Your task to perform on an android device: turn pop-ups on in chrome Image 0: 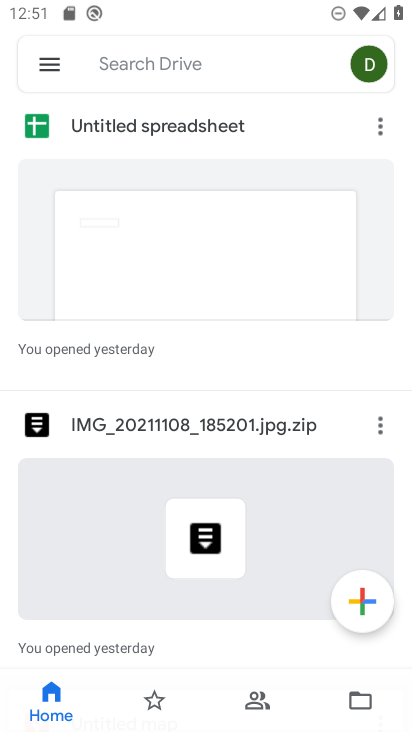
Step 0: press home button
Your task to perform on an android device: turn pop-ups on in chrome Image 1: 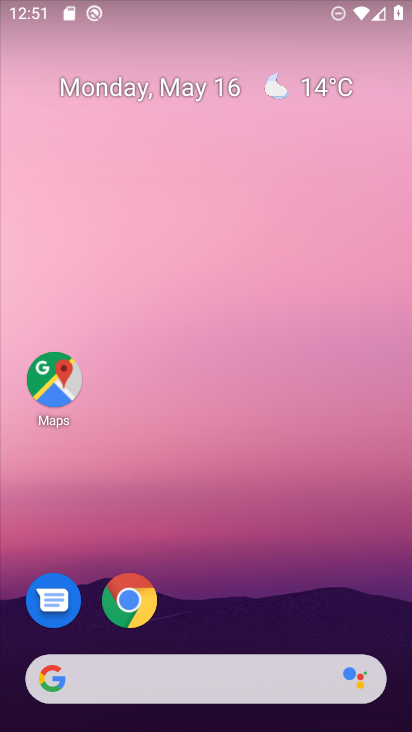
Step 1: click (125, 594)
Your task to perform on an android device: turn pop-ups on in chrome Image 2: 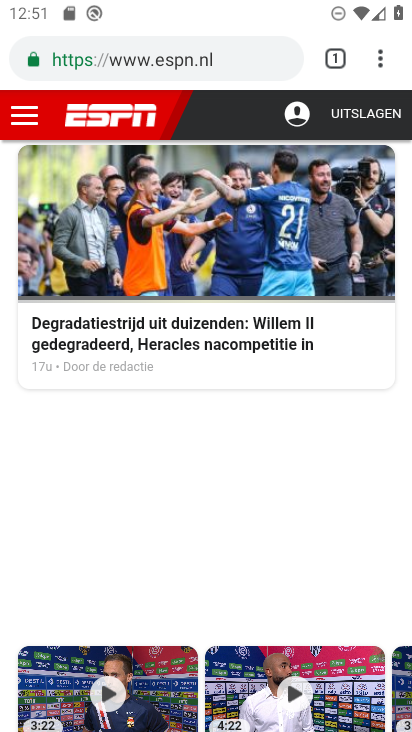
Step 2: click (381, 56)
Your task to perform on an android device: turn pop-ups on in chrome Image 3: 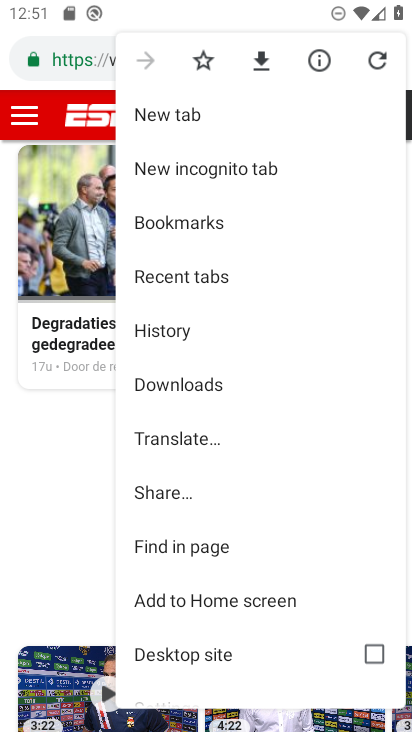
Step 3: drag from (258, 629) to (278, 115)
Your task to perform on an android device: turn pop-ups on in chrome Image 4: 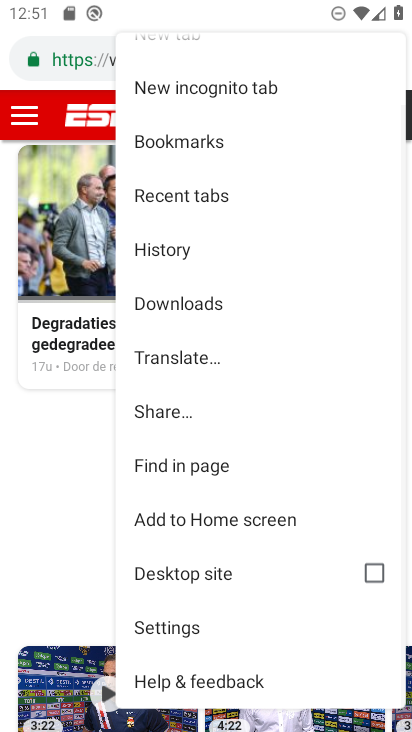
Step 4: click (210, 626)
Your task to perform on an android device: turn pop-ups on in chrome Image 5: 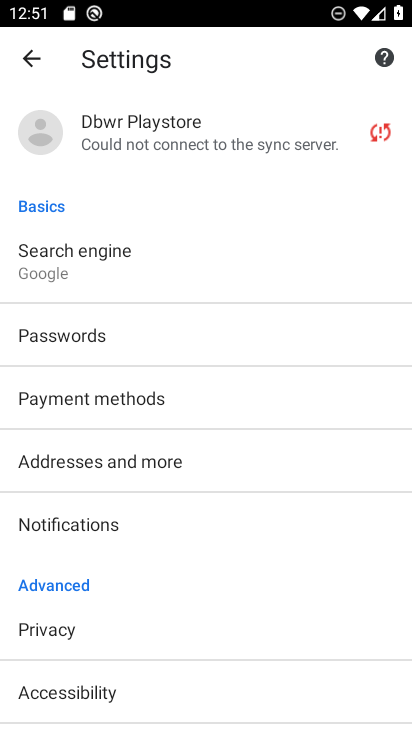
Step 5: drag from (240, 324) to (240, 156)
Your task to perform on an android device: turn pop-ups on in chrome Image 6: 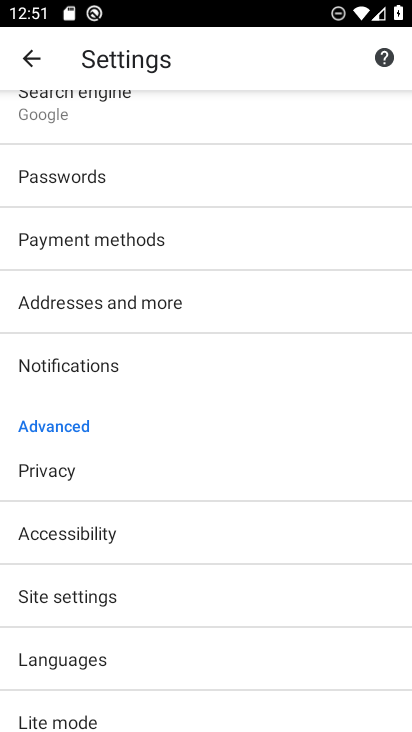
Step 6: click (133, 588)
Your task to perform on an android device: turn pop-ups on in chrome Image 7: 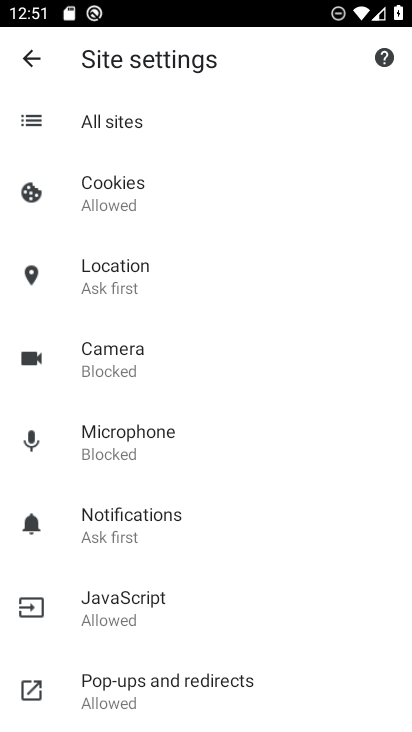
Step 7: click (180, 696)
Your task to perform on an android device: turn pop-ups on in chrome Image 8: 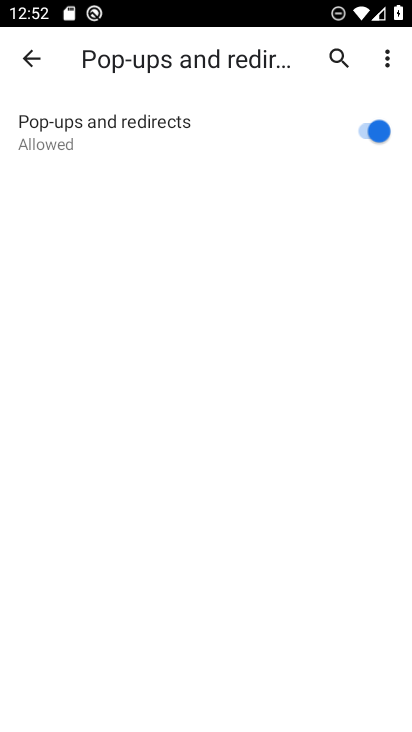
Step 8: click (369, 123)
Your task to perform on an android device: turn pop-ups on in chrome Image 9: 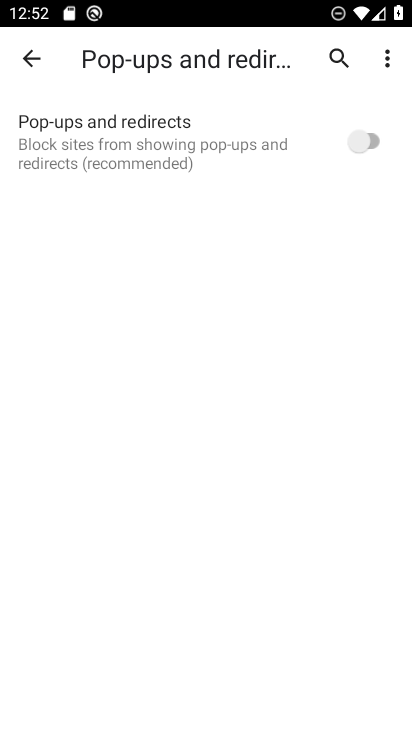
Step 9: task complete